Your task to perform on an android device: delete the emails in spam in the gmail app Image 0: 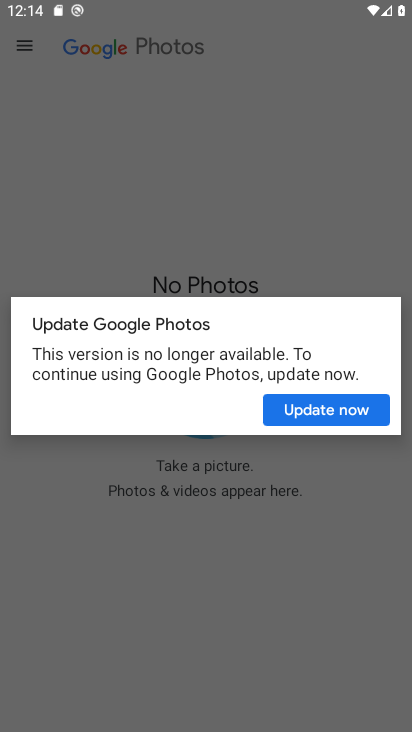
Step 0: press home button
Your task to perform on an android device: delete the emails in spam in the gmail app Image 1: 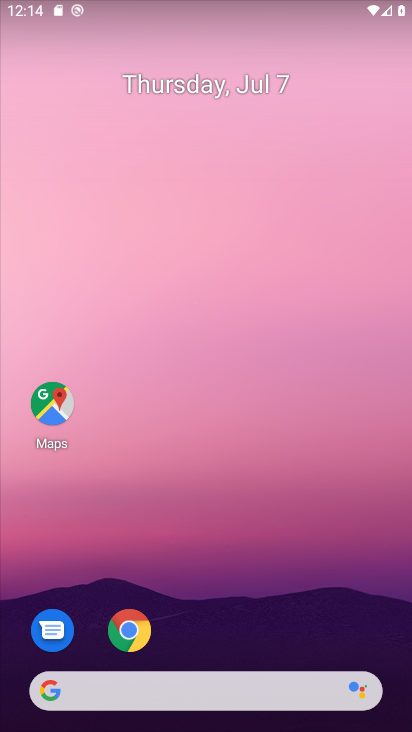
Step 1: drag from (217, 630) to (234, 390)
Your task to perform on an android device: delete the emails in spam in the gmail app Image 2: 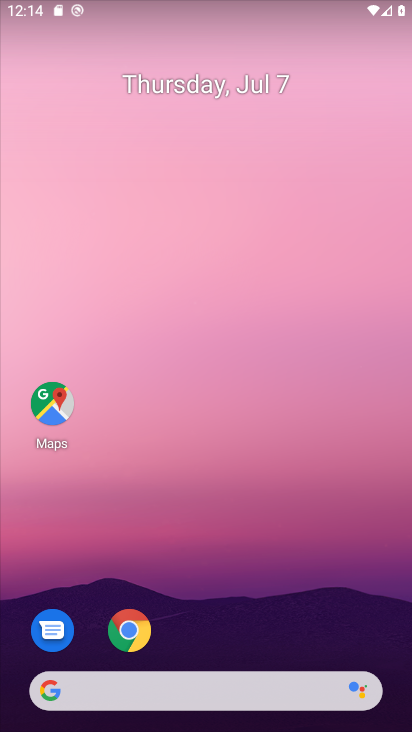
Step 2: drag from (245, 613) to (271, 251)
Your task to perform on an android device: delete the emails in spam in the gmail app Image 3: 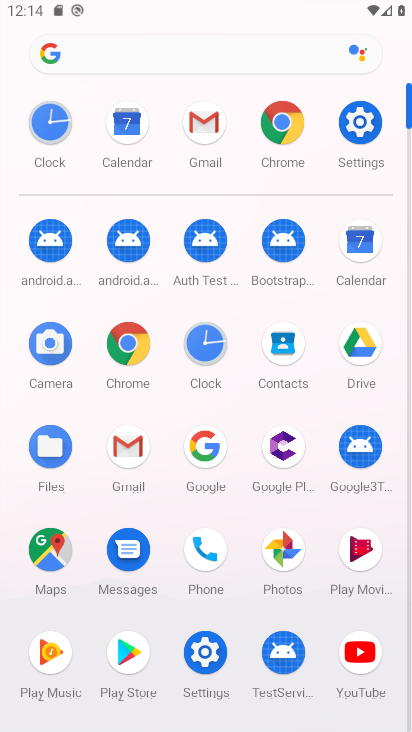
Step 3: click (203, 106)
Your task to perform on an android device: delete the emails in spam in the gmail app Image 4: 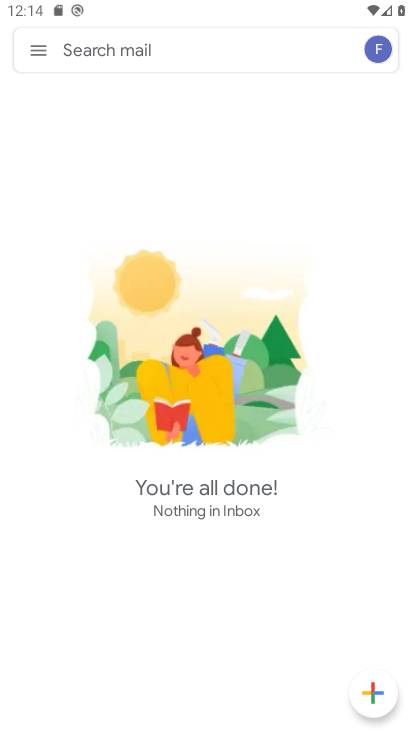
Step 4: click (39, 39)
Your task to perform on an android device: delete the emails in spam in the gmail app Image 5: 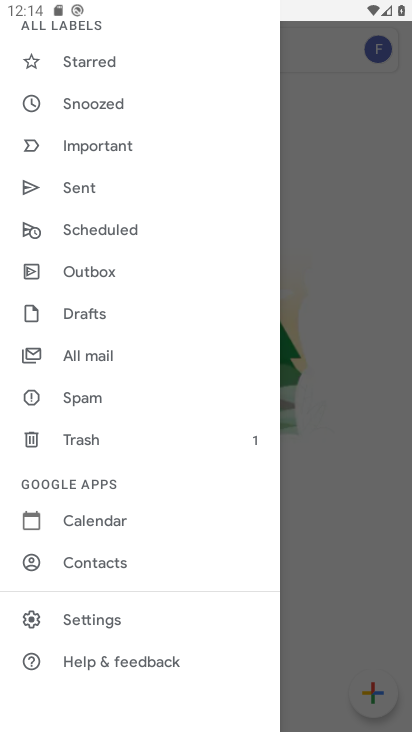
Step 5: click (88, 385)
Your task to perform on an android device: delete the emails in spam in the gmail app Image 6: 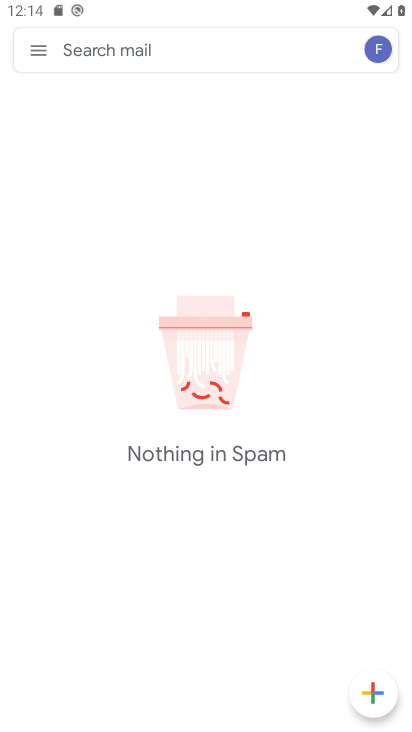
Step 6: task complete